Your task to perform on an android device: all mails in gmail Image 0: 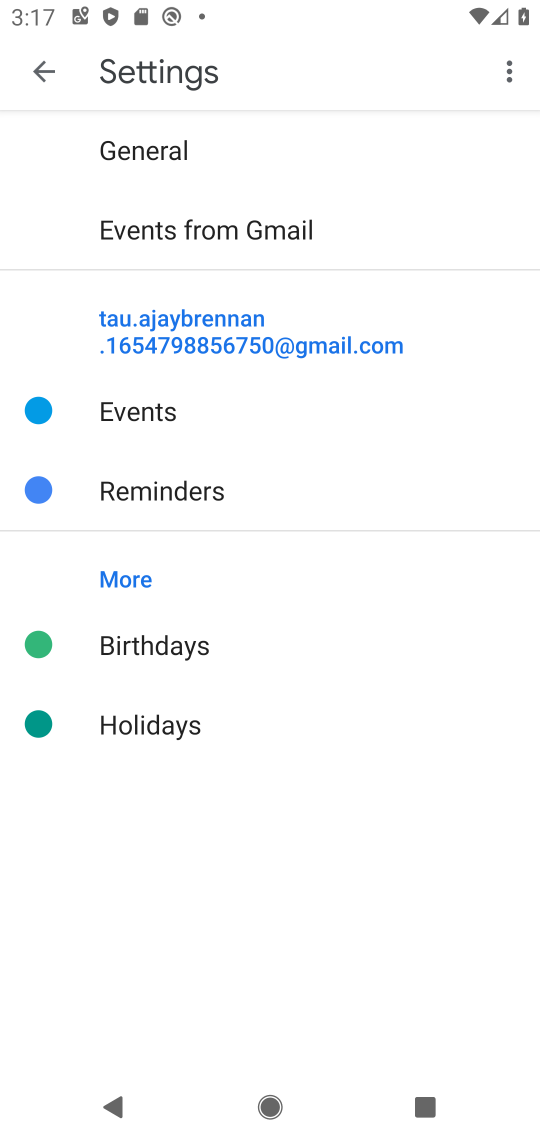
Step 0: press back button
Your task to perform on an android device: all mails in gmail Image 1: 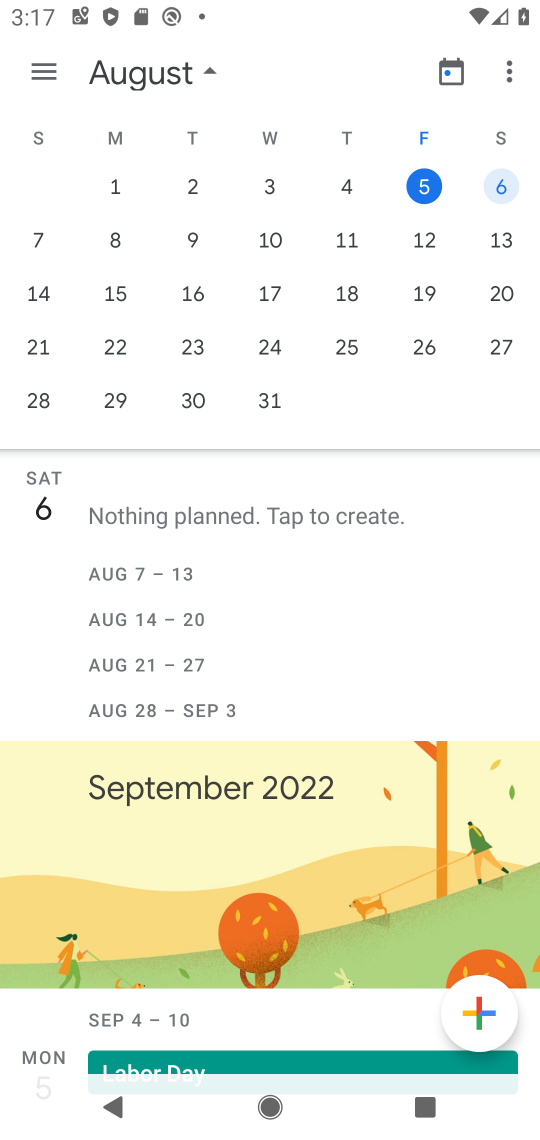
Step 1: press back button
Your task to perform on an android device: all mails in gmail Image 2: 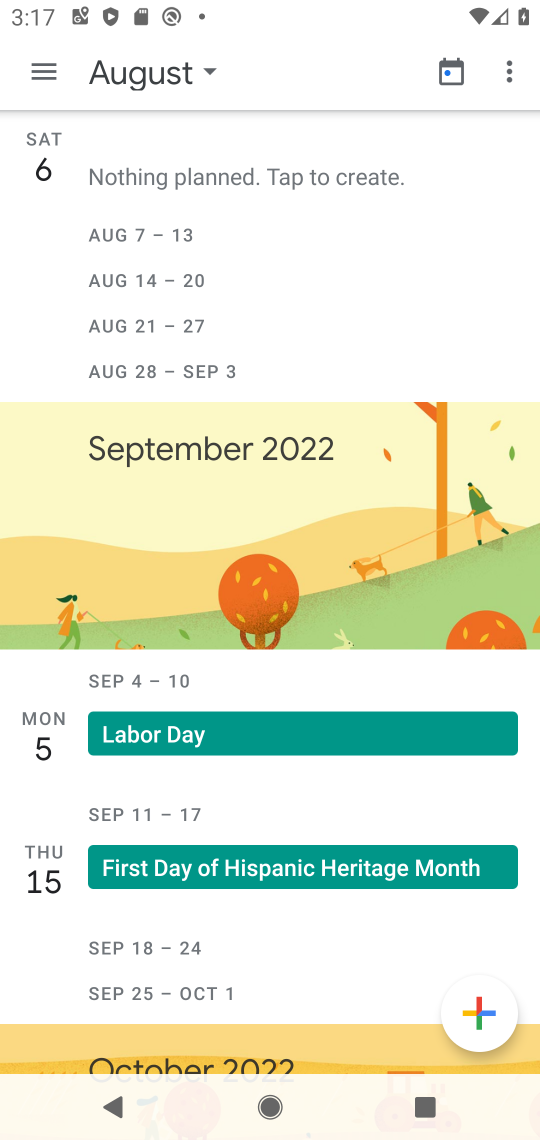
Step 2: press back button
Your task to perform on an android device: all mails in gmail Image 3: 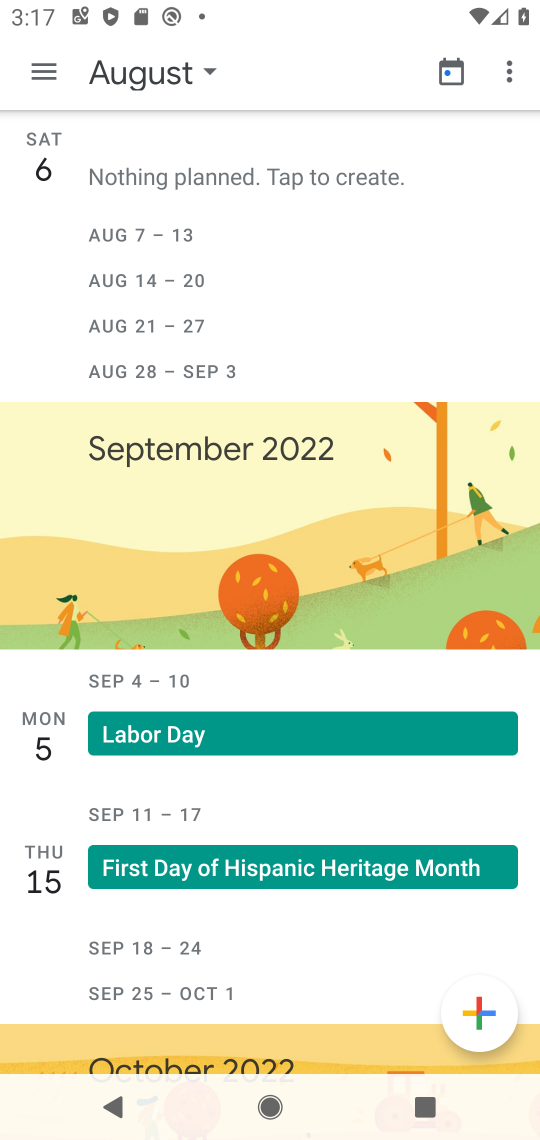
Step 3: press home button
Your task to perform on an android device: all mails in gmail Image 4: 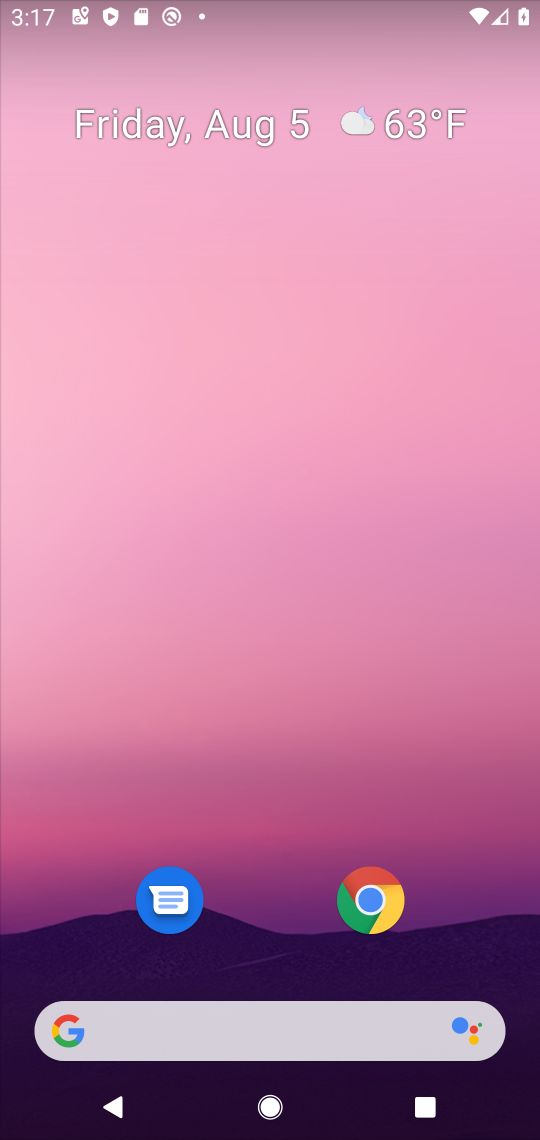
Step 4: drag from (260, 952) to (262, 54)
Your task to perform on an android device: all mails in gmail Image 5: 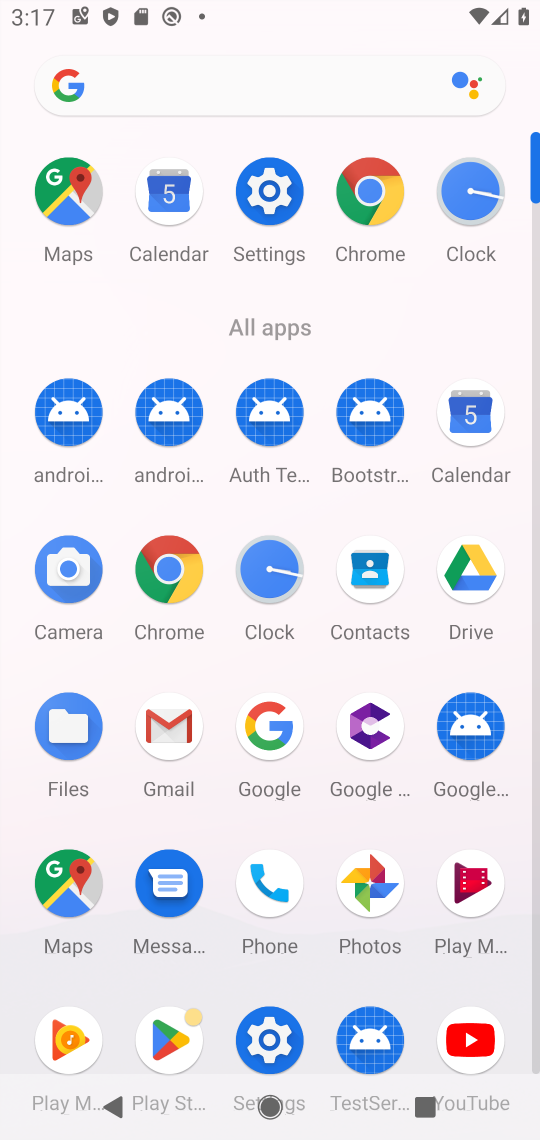
Step 5: click (174, 727)
Your task to perform on an android device: all mails in gmail Image 6: 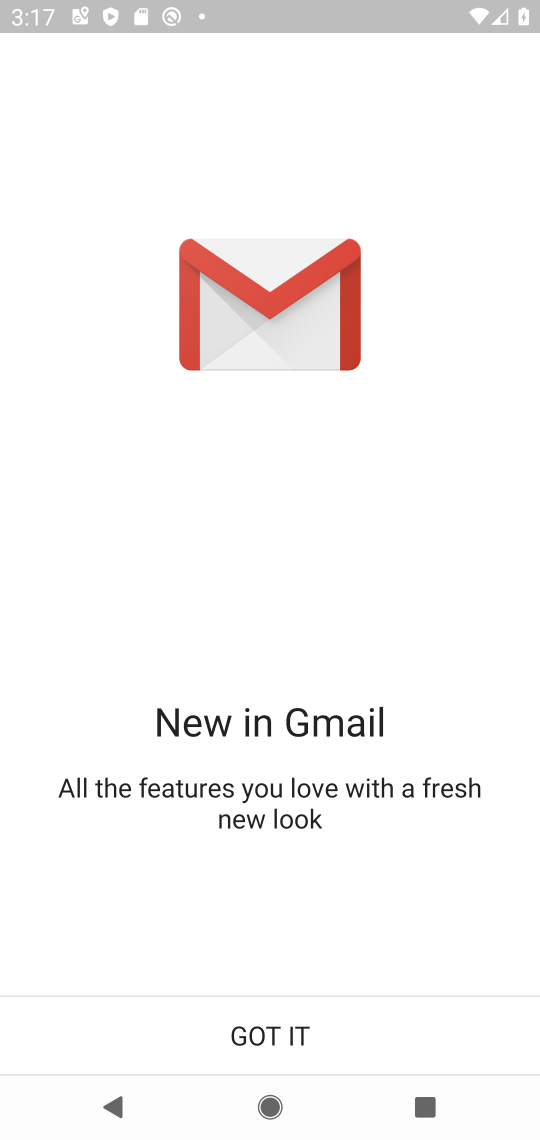
Step 6: click (287, 1039)
Your task to perform on an android device: all mails in gmail Image 7: 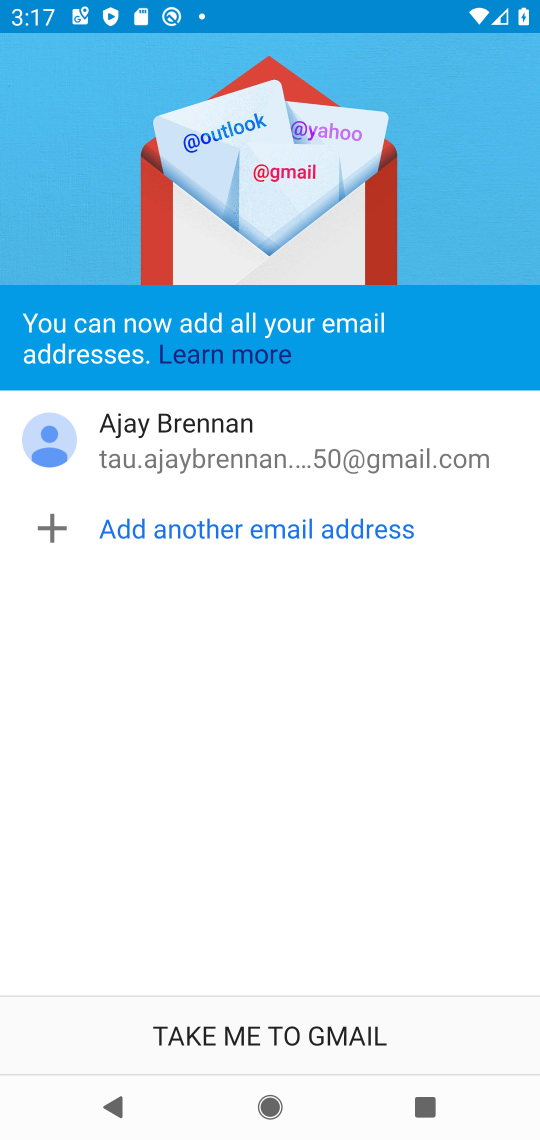
Step 7: click (185, 1029)
Your task to perform on an android device: all mails in gmail Image 8: 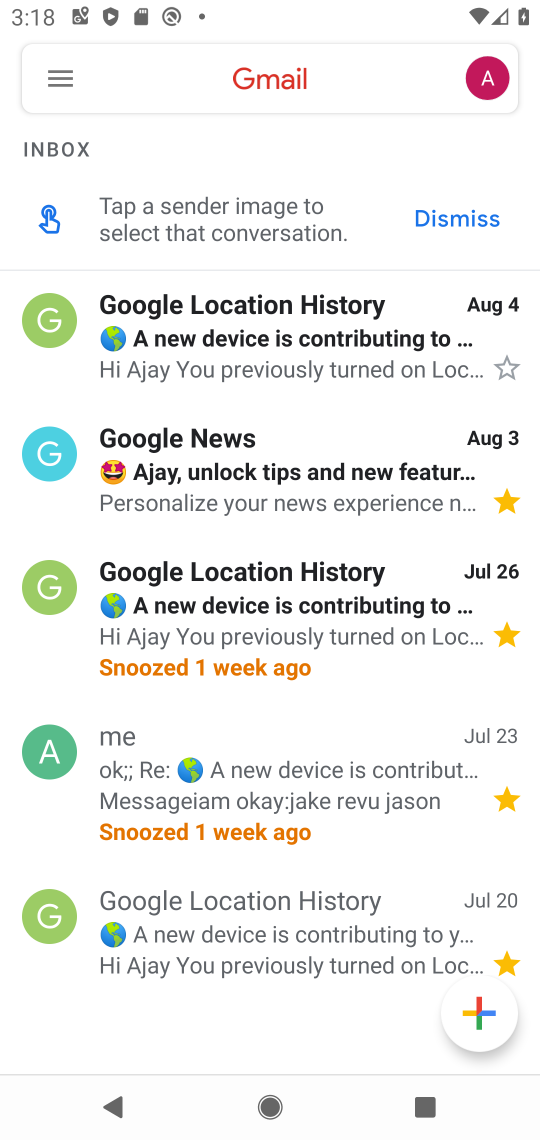
Step 8: click (65, 77)
Your task to perform on an android device: all mails in gmail Image 9: 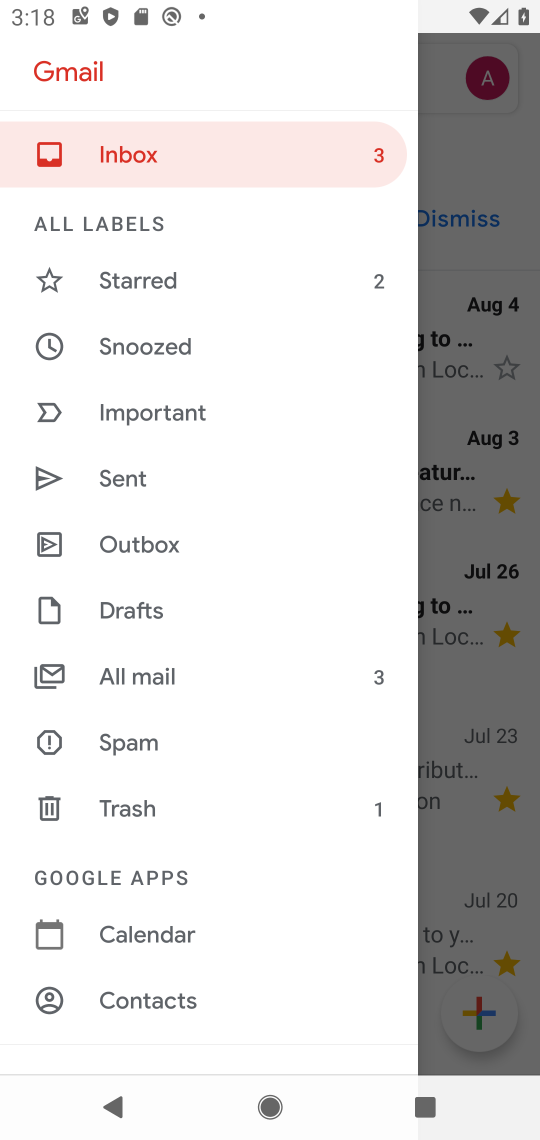
Step 9: click (136, 682)
Your task to perform on an android device: all mails in gmail Image 10: 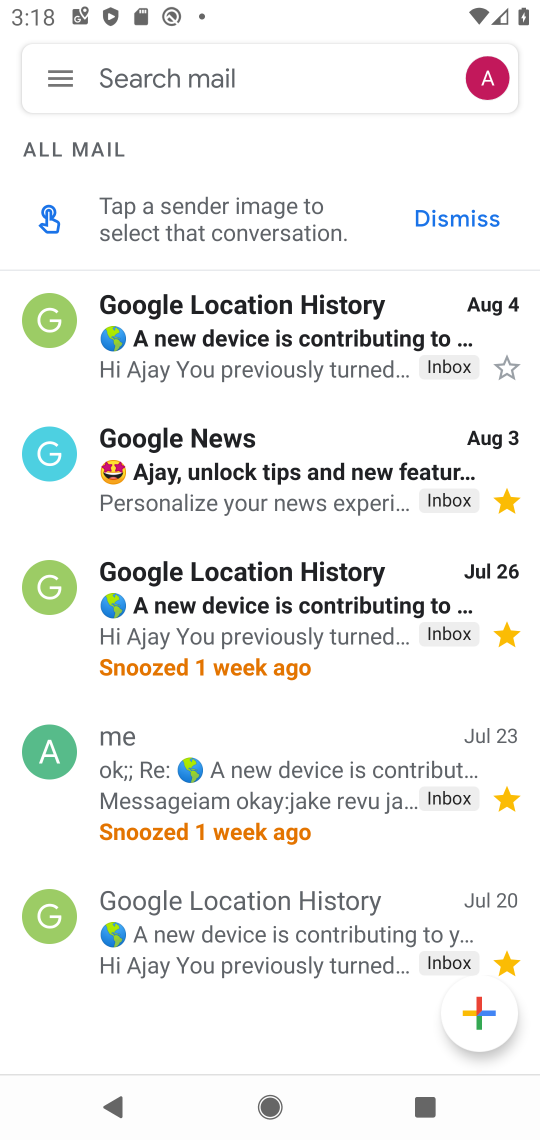
Step 10: task complete